Your task to perform on an android device: move a message to another label in the gmail app Image 0: 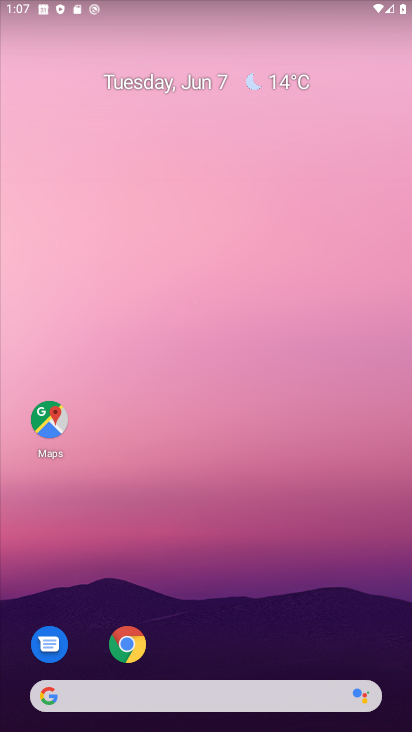
Step 0: drag from (115, 728) to (182, 54)
Your task to perform on an android device: move a message to another label in the gmail app Image 1: 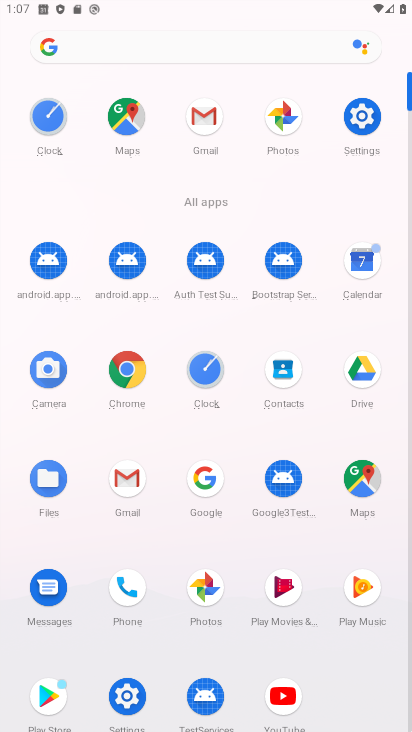
Step 1: click (129, 485)
Your task to perform on an android device: move a message to another label in the gmail app Image 2: 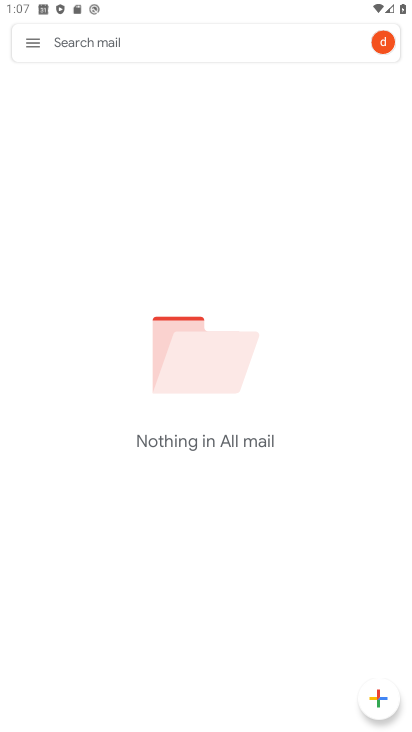
Step 2: click (30, 42)
Your task to perform on an android device: move a message to another label in the gmail app Image 3: 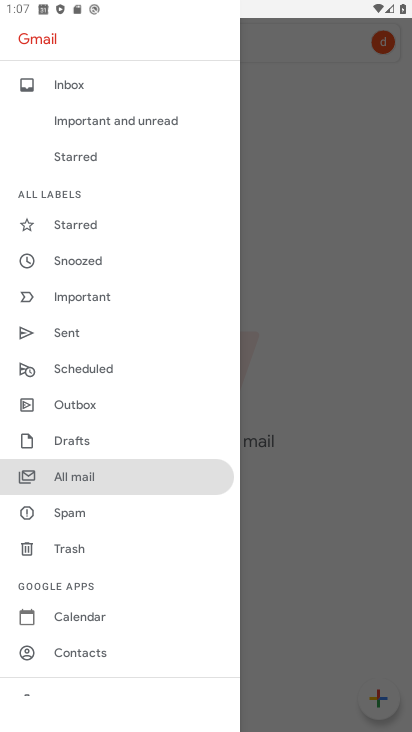
Step 3: click (73, 80)
Your task to perform on an android device: move a message to another label in the gmail app Image 4: 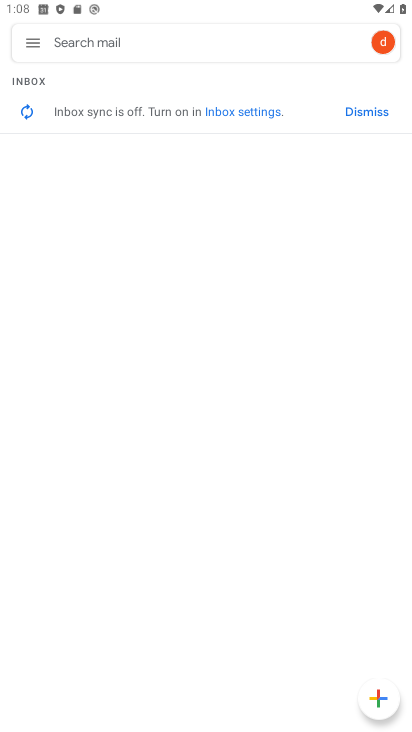
Step 4: task complete